Your task to perform on an android device: Open Youtube and go to the subscriptions tab Image 0: 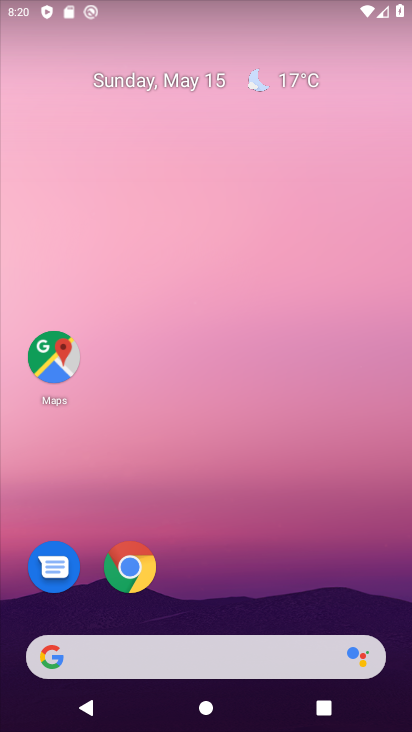
Step 0: drag from (200, 674) to (125, 23)
Your task to perform on an android device: Open Youtube and go to the subscriptions tab Image 1: 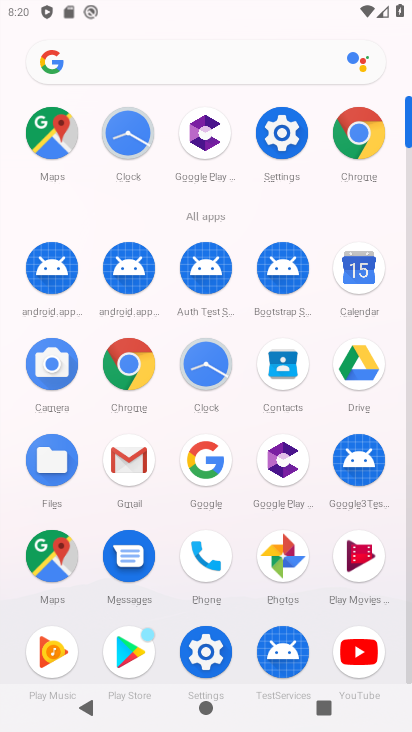
Step 1: click (348, 650)
Your task to perform on an android device: Open Youtube and go to the subscriptions tab Image 2: 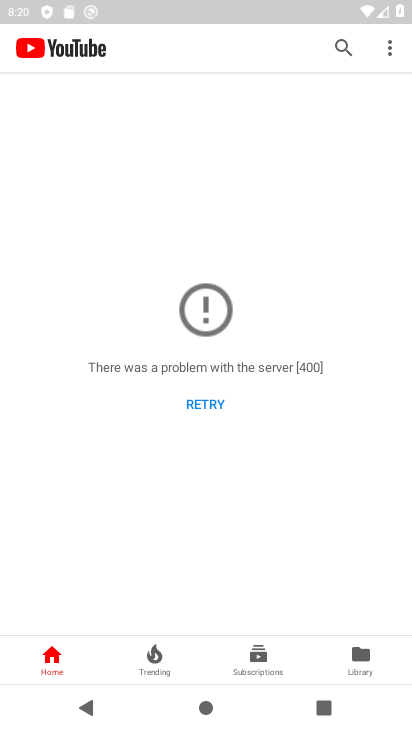
Step 2: click (258, 652)
Your task to perform on an android device: Open Youtube and go to the subscriptions tab Image 3: 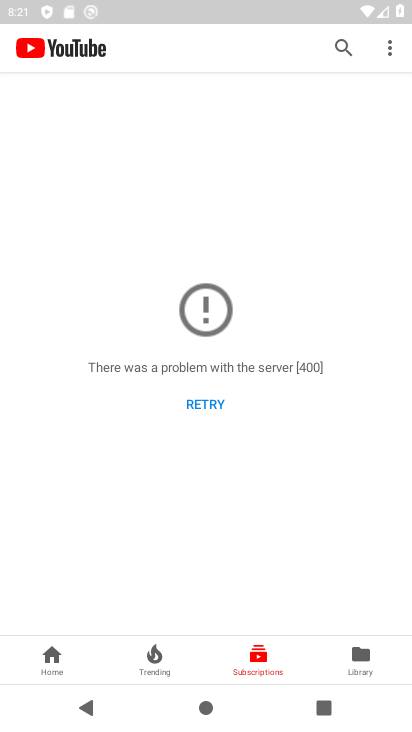
Step 3: task complete